Your task to perform on an android device: What's the weather today? Image 0: 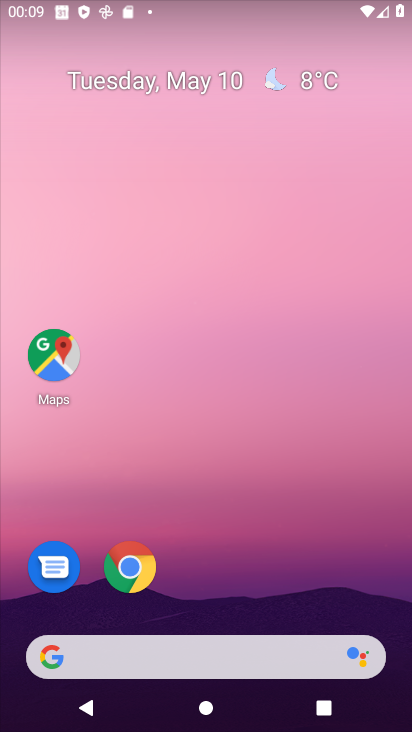
Step 0: drag from (245, 553) to (195, 170)
Your task to perform on an android device: What's the weather today? Image 1: 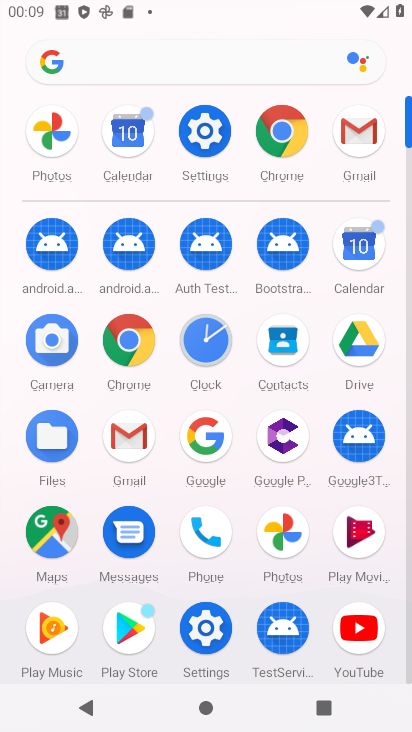
Step 1: click (199, 437)
Your task to perform on an android device: What's the weather today? Image 2: 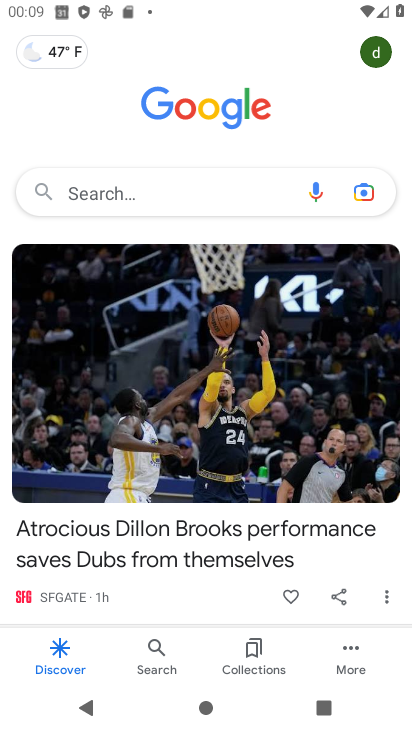
Step 2: click (149, 182)
Your task to perform on an android device: What's the weather today? Image 3: 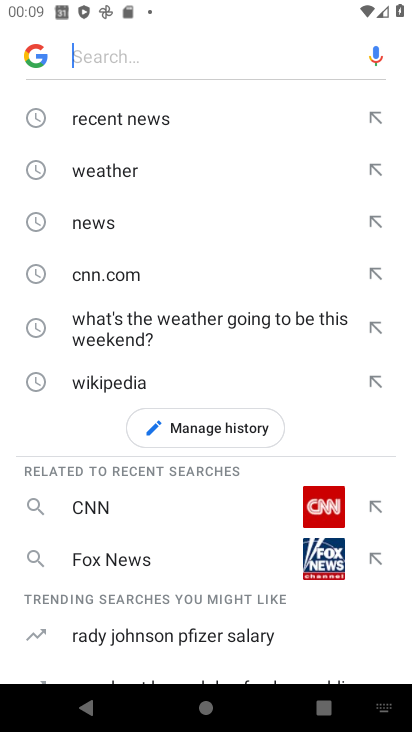
Step 3: type "weather today"
Your task to perform on an android device: What's the weather today? Image 4: 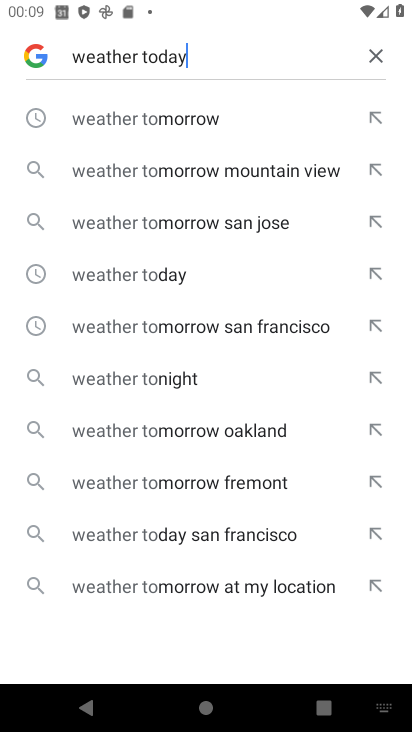
Step 4: type ""
Your task to perform on an android device: What's the weather today? Image 5: 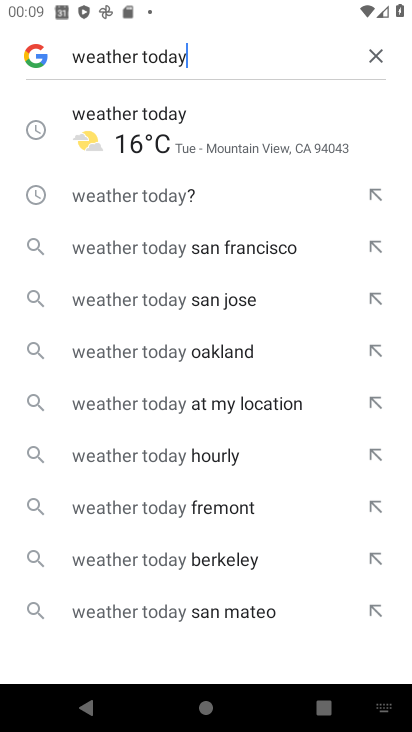
Step 5: click (171, 123)
Your task to perform on an android device: What's the weather today? Image 6: 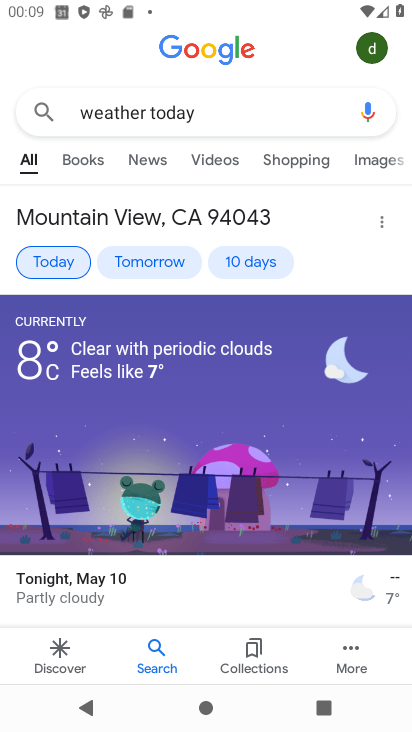
Step 6: task complete